Your task to perform on an android device: Search for pizza restaurants on Maps Image 0: 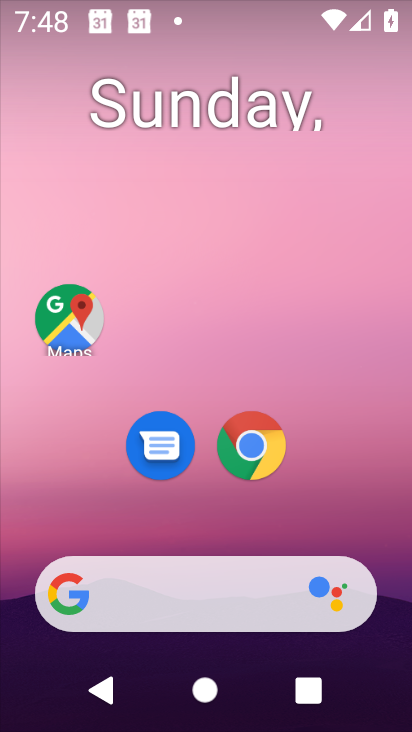
Step 0: click (68, 326)
Your task to perform on an android device: Search for pizza restaurants on Maps Image 1: 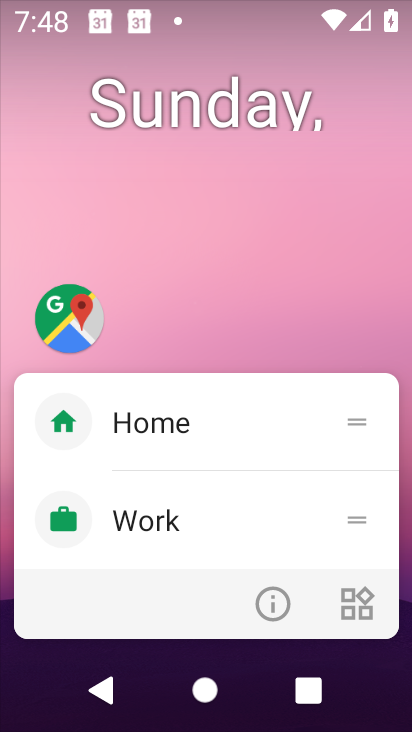
Step 1: click (67, 326)
Your task to perform on an android device: Search for pizza restaurants on Maps Image 2: 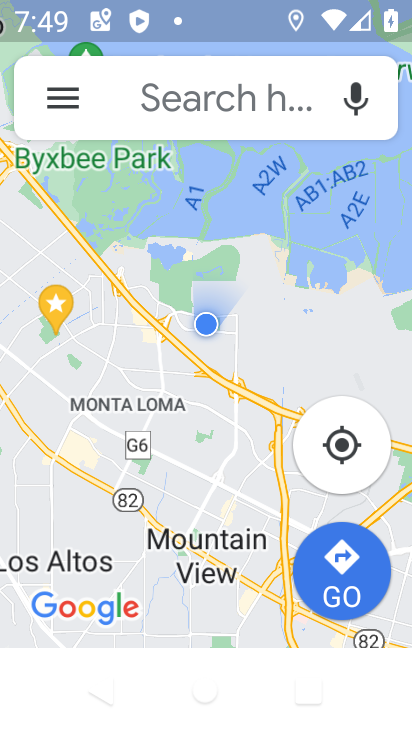
Step 2: click (171, 113)
Your task to perform on an android device: Search for pizza restaurants on Maps Image 3: 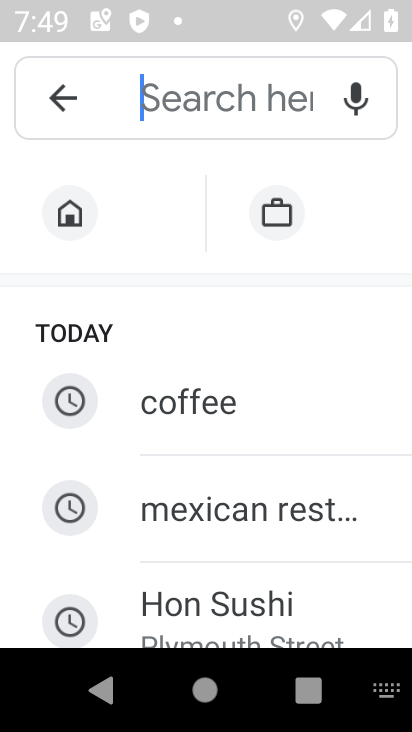
Step 3: drag from (73, 498) to (250, 129)
Your task to perform on an android device: Search for pizza restaurants on Maps Image 4: 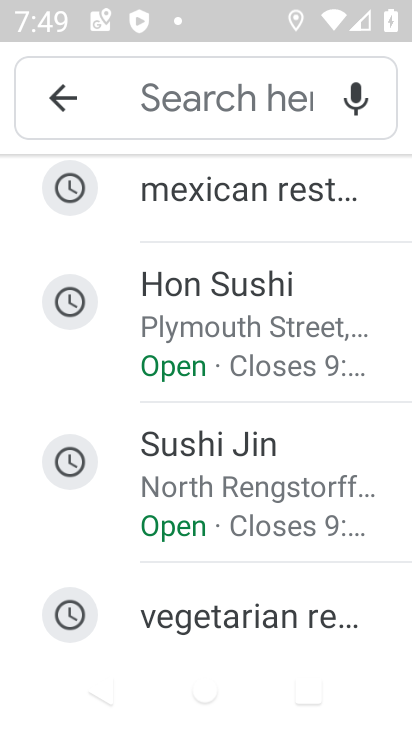
Step 4: drag from (20, 495) to (189, 208)
Your task to perform on an android device: Search for pizza restaurants on Maps Image 5: 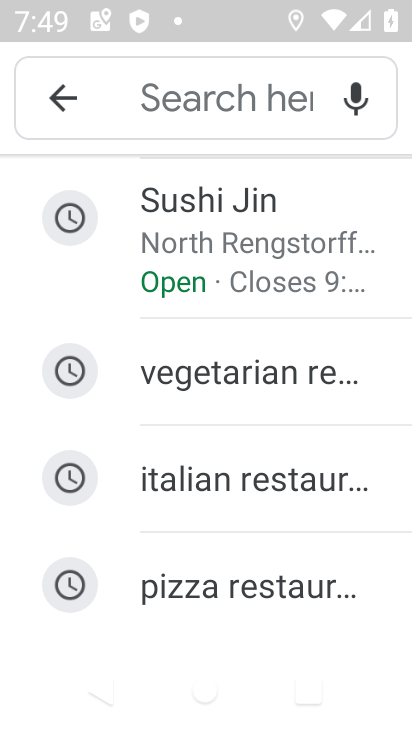
Step 5: click (120, 586)
Your task to perform on an android device: Search for pizza restaurants on Maps Image 6: 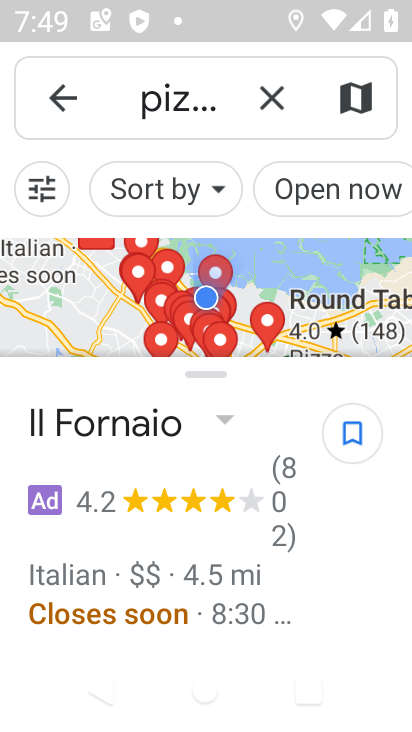
Step 6: task complete